Your task to perform on an android device: delete the emails in spam in the gmail app Image 0: 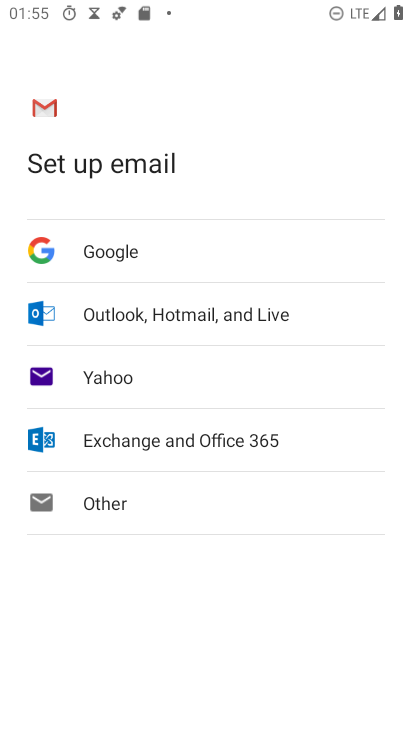
Step 0: press home button
Your task to perform on an android device: delete the emails in spam in the gmail app Image 1: 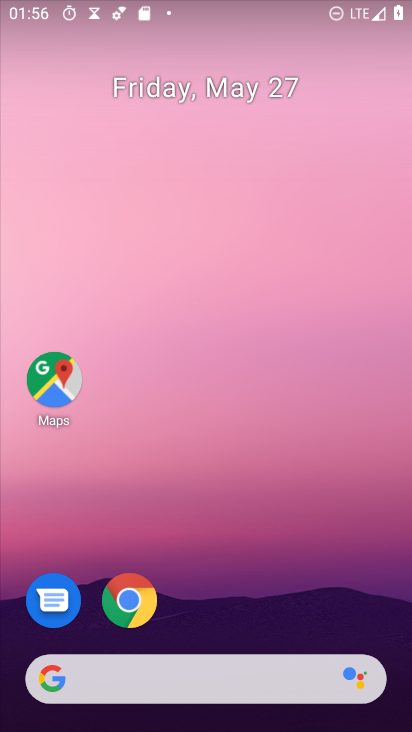
Step 1: drag from (259, 600) to (239, 66)
Your task to perform on an android device: delete the emails in spam in the gmail app Image 2: 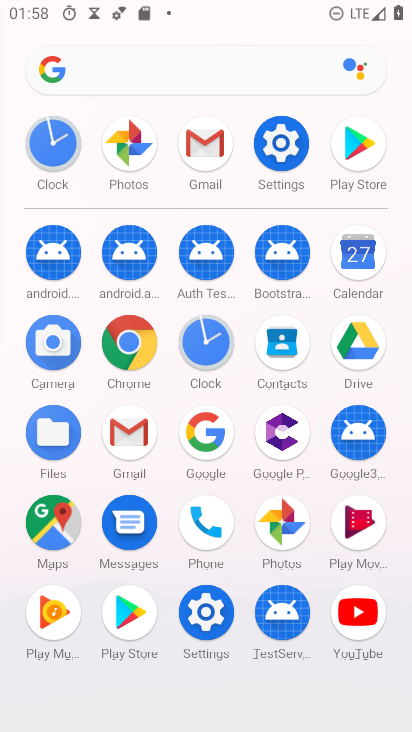
Step 2: click (181, 142)
Your task to perform on an android device: delete the emails in spam in the gmail app Image 3: 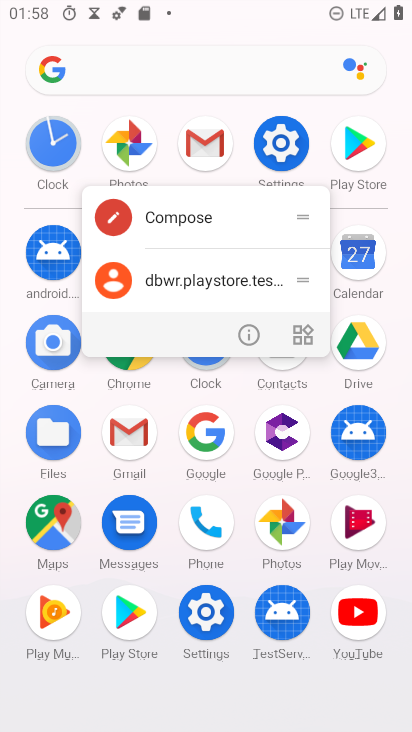
Step 3: click (206, 138)
Your task to perform on an android device: delete the emails in spam in the gmail app Image 4: 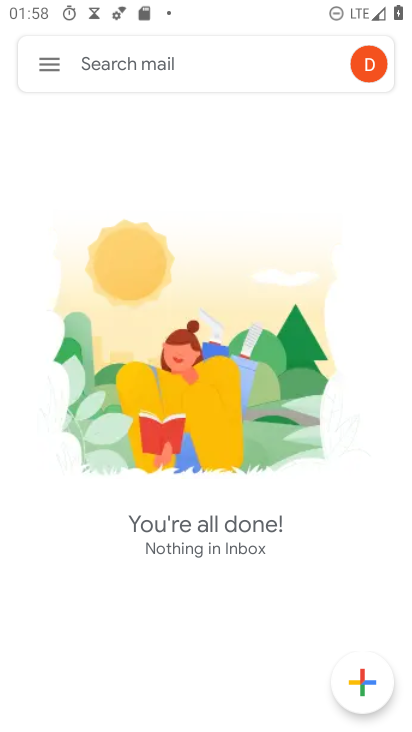
Step 4: click (50, 60)
Your task to perform on an android device: delete the emails in spam in the gmail app Image 5: 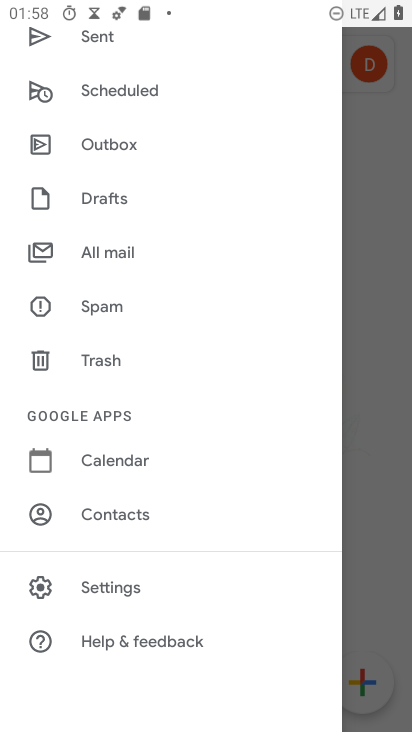
Step 5: drag from (193, 161) to (213, 663)
Your task to perform on an android device: delete the emails in spam in the gmail app Image 6: 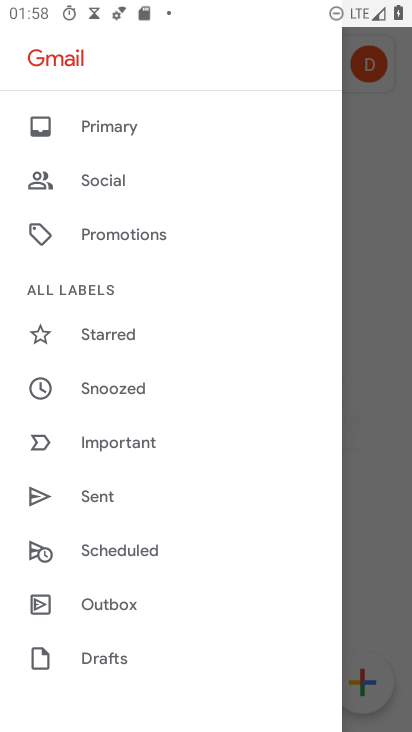
Step 6: drag from (146, 548) to (180, 135)
Your task to perform on an android device: delete the emails in spam in the gmail app Image 7: 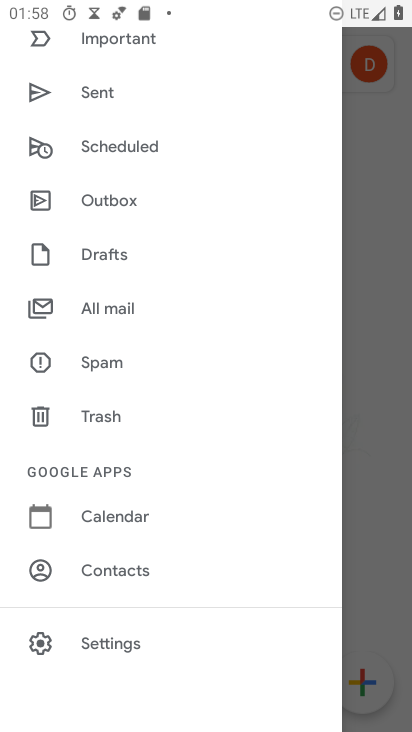
Step 7: click (97, 344)
Your task to perform on an android device: delete the emails in spam in the gmail app Image 8: 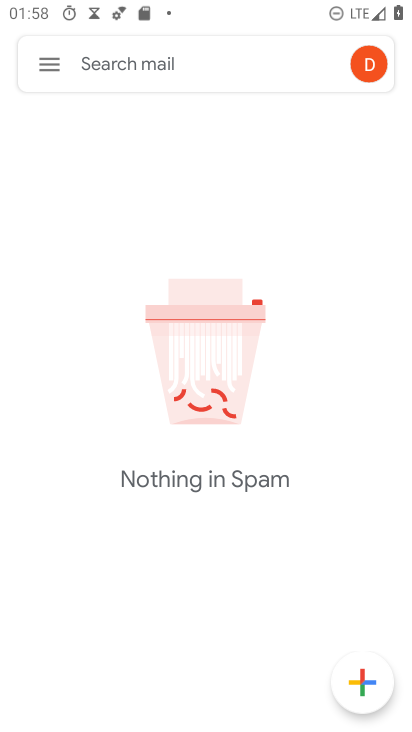
Step 8: task complete